Your task to perform on an android device: Search for razer naga on newegg, select the first entry, add it to the cart, then select checkout. Image 0: 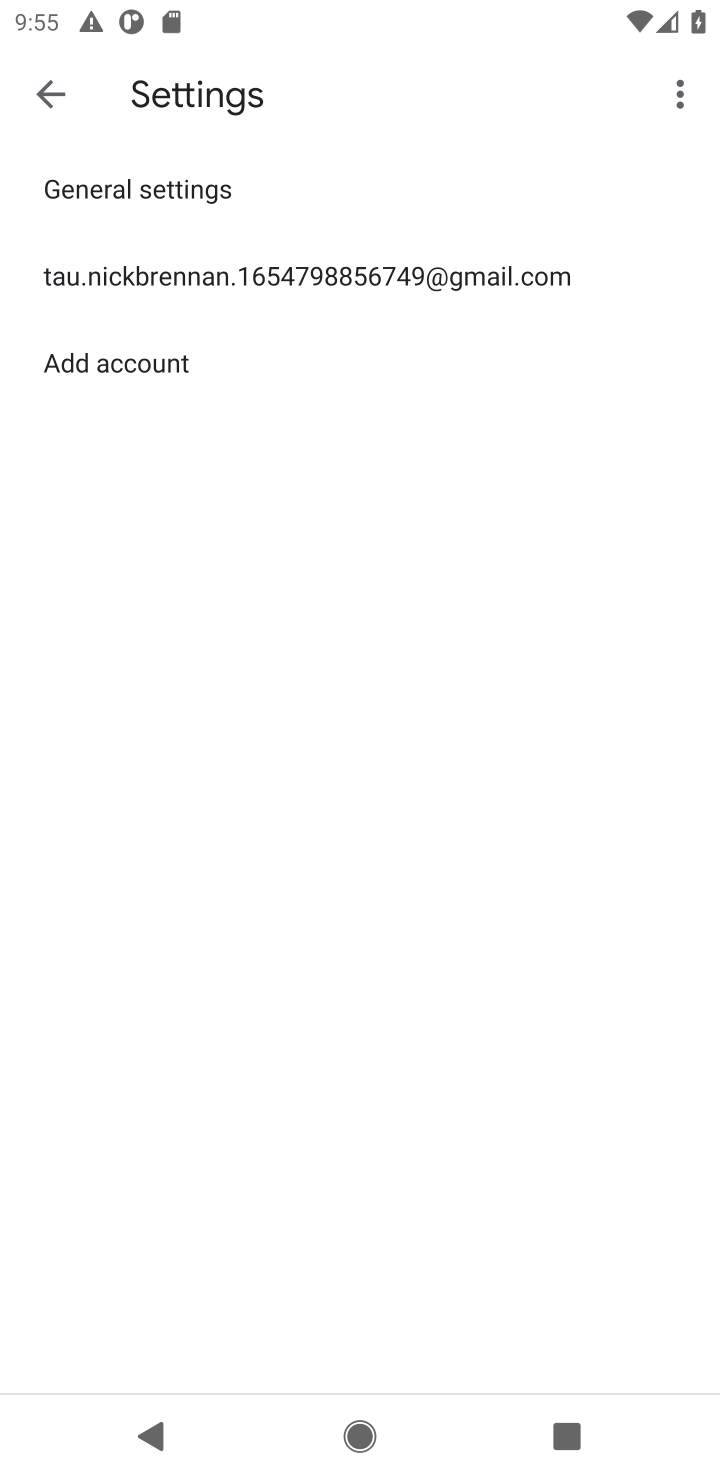
Step 0: press home button
Your task to perform on an android device: Search for razer naga on newegg, select the first entry, add it to the cart, then select checkout. Image 1: 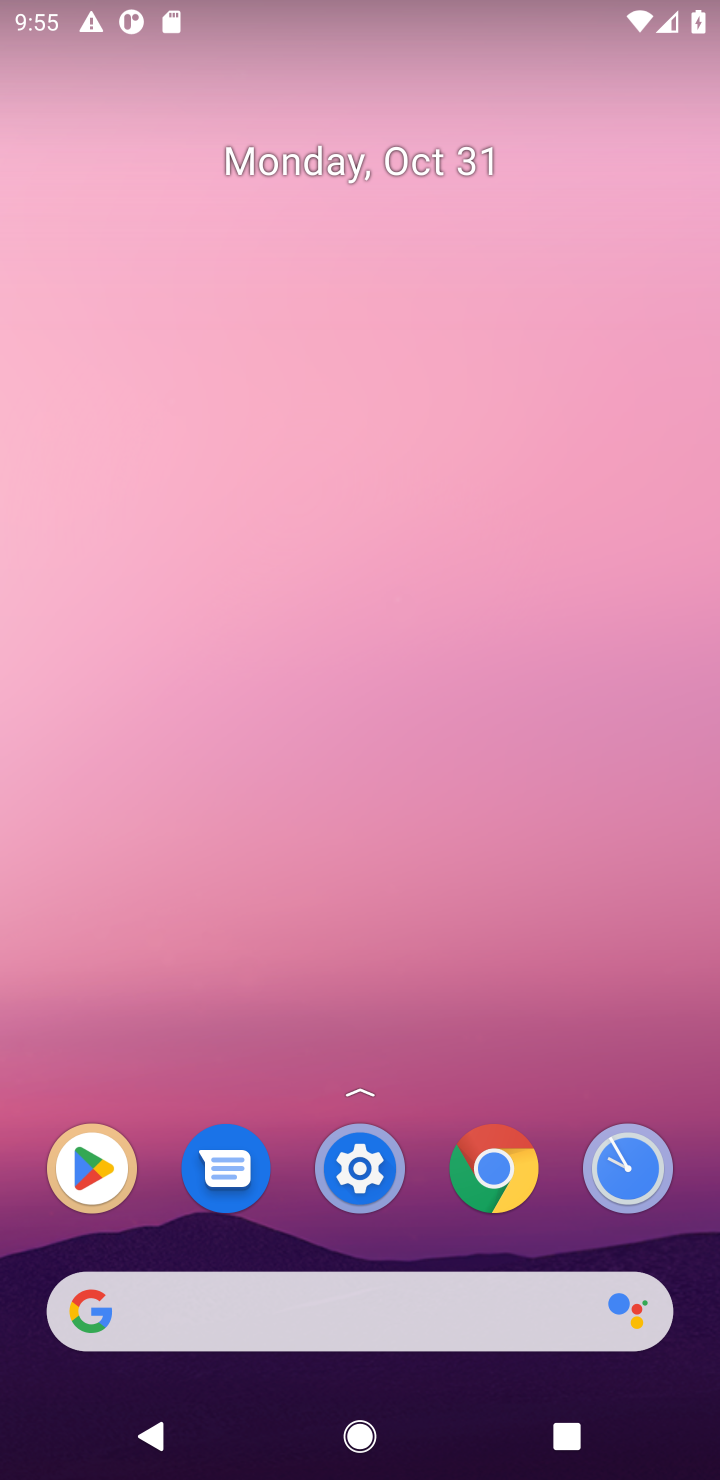
Step 1: click (493, 1176)
Your task to perform on an android device: Search for razer naga on newegg, select the first entry, add it to the cart, then select checkout. Image 2: 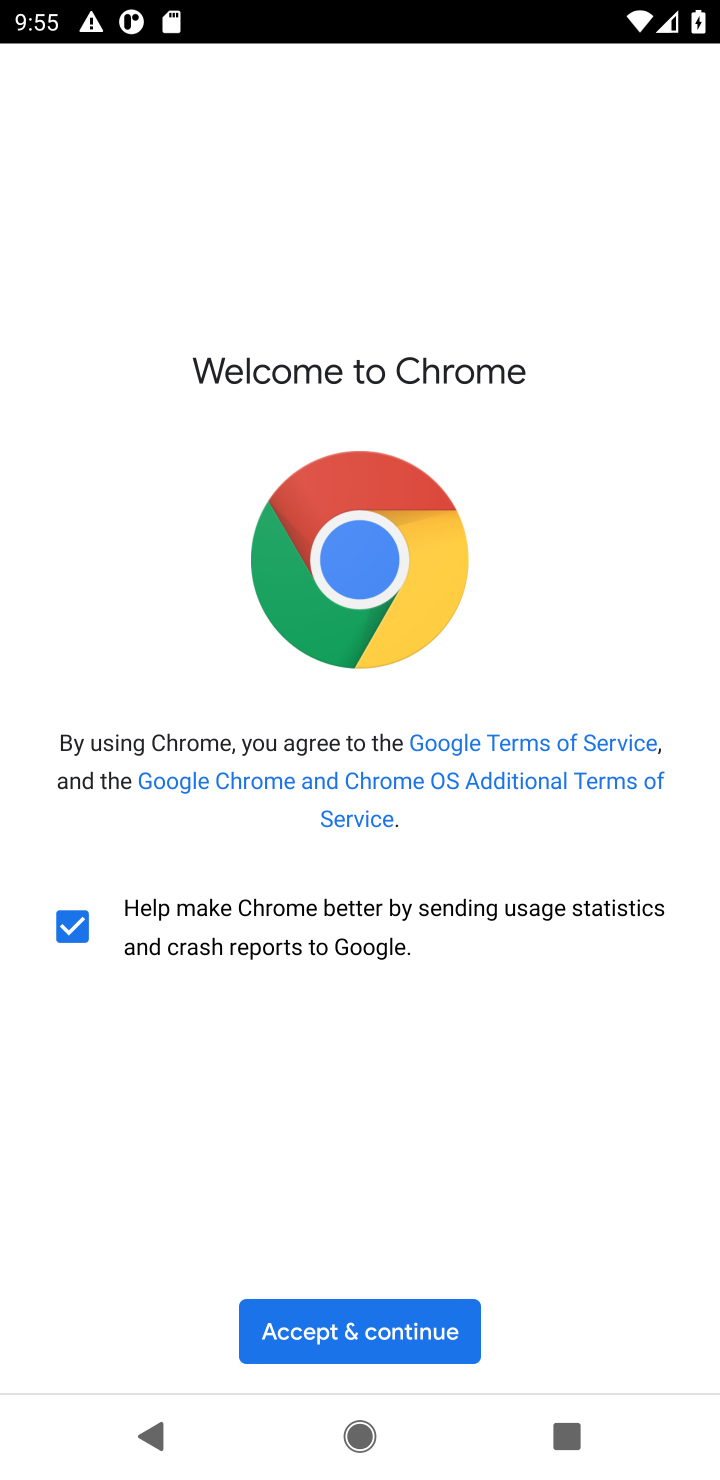
Step 2: click (322, 1324)
Your task to perform on an android device: Search for razer naga on newegg, select the first entry, add it to the cart, then select checkout. Image 3: 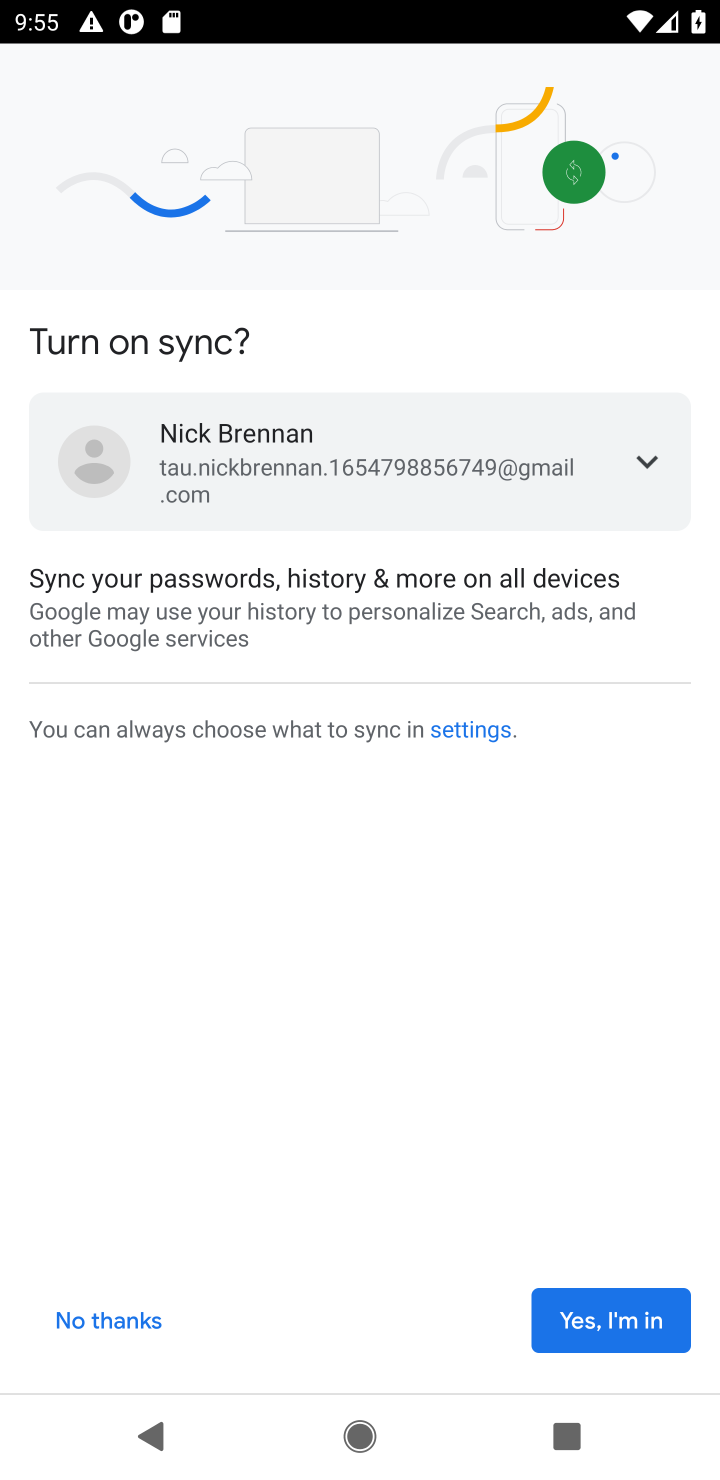
Step 3: click (82, 1314)
Your task to perform on an android device: Search for razer naga on newegg, select the first entry, add it to the cart, then select checkout. Image 4: 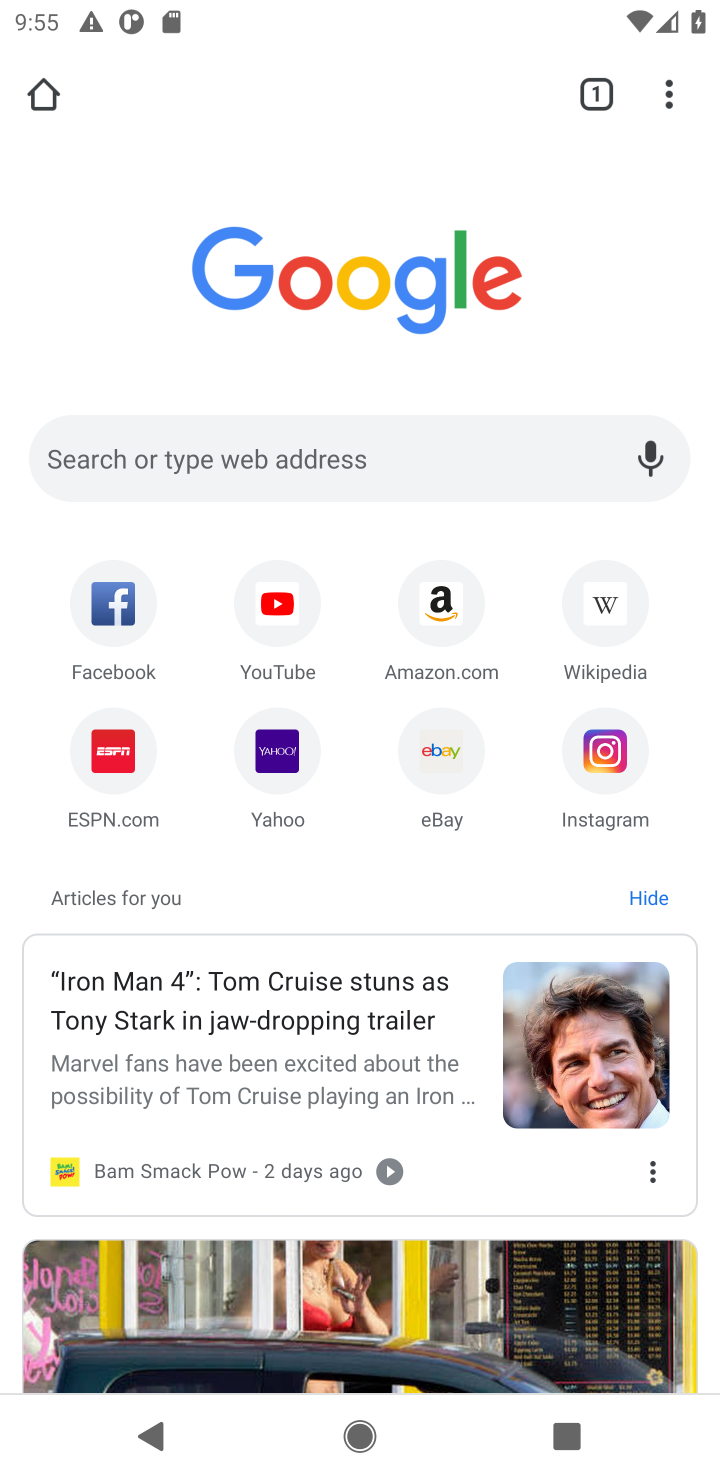
Step 4: click (429, 480)
Your task to perform on an android device: Search for razer naga on newegg, select the first entry, add it to the cart, then select checkout. Image 5: 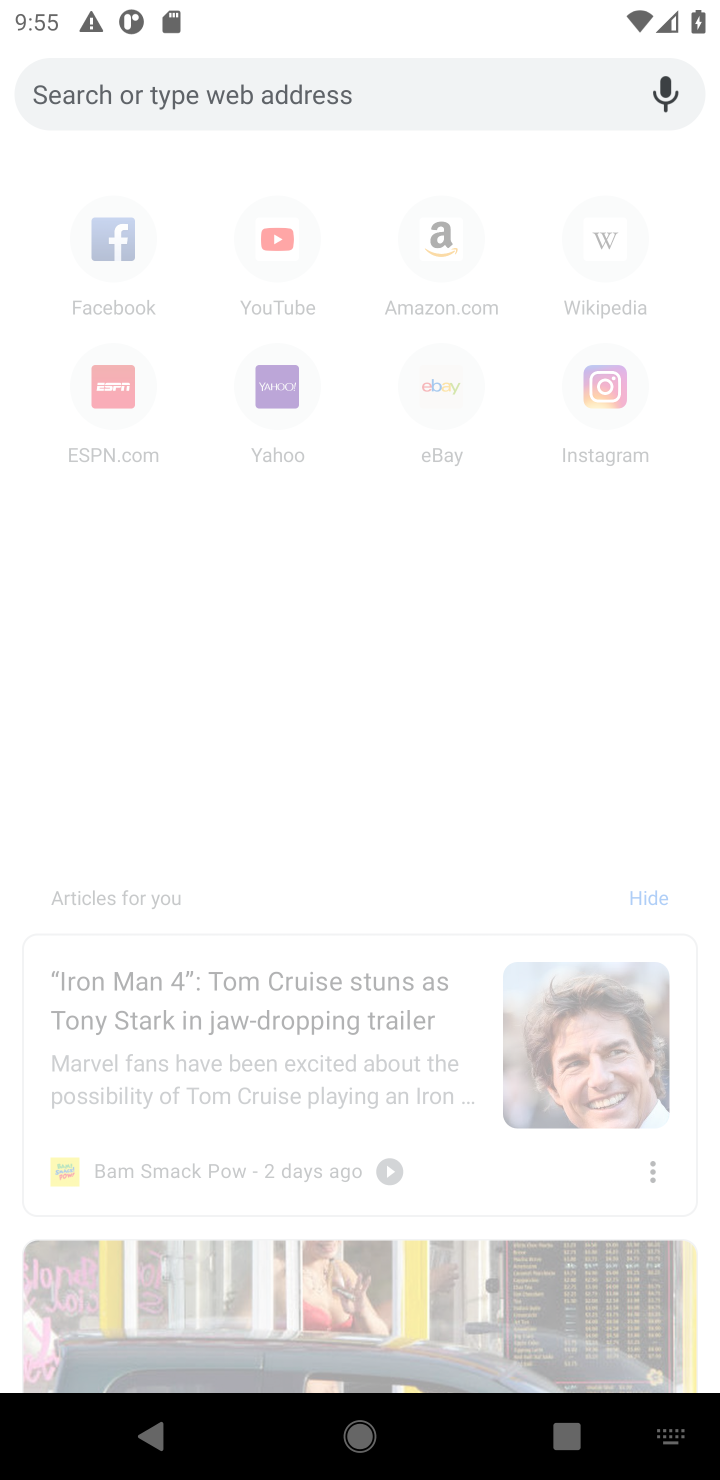
Step 5: type "newegg"
Your task to perform on an android device: Search for razer naga on newegg, select the first entry, add it to the cart, then select checkout. Image 6: 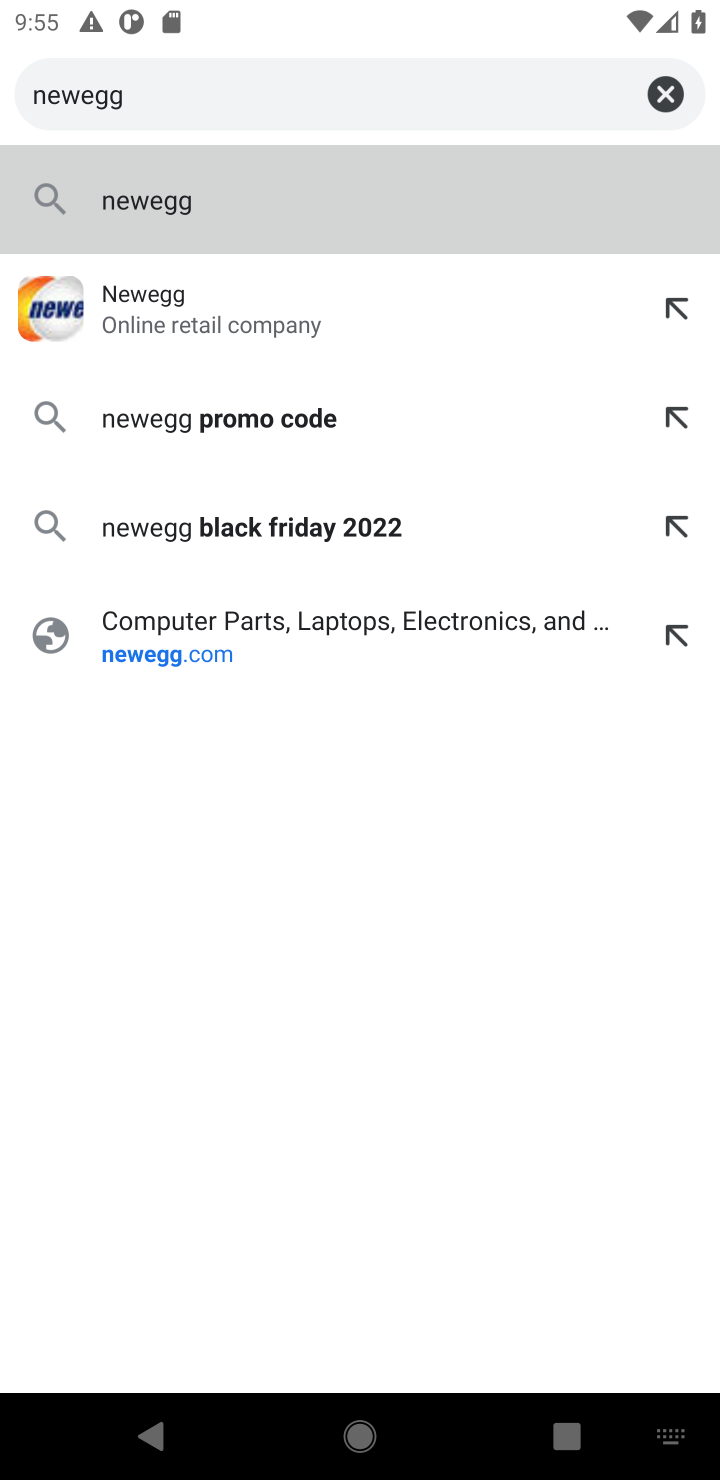
Step 6: click (202, 304)
Your task to perform on an android device: Search for razer naga on newegg, select the first entry, add it to the cart, then select checkout. Image 7: 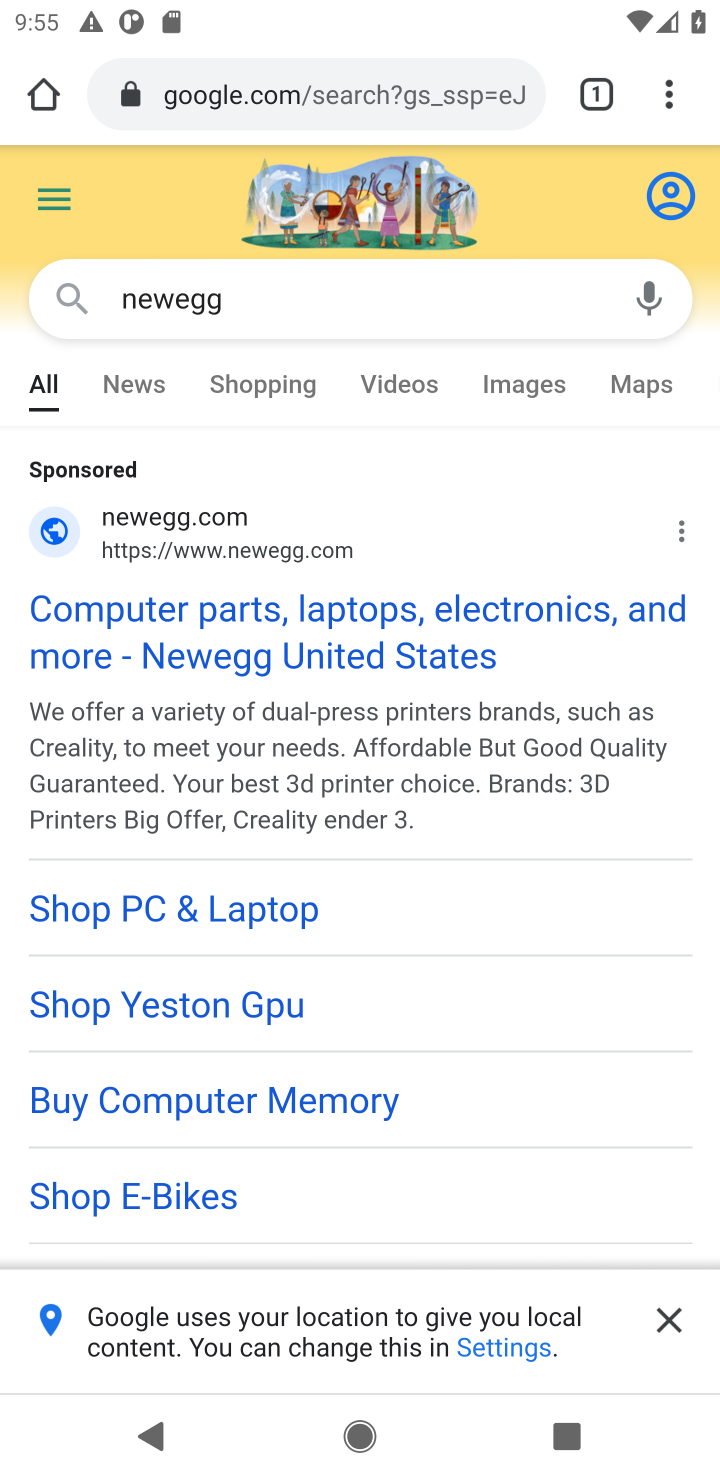
Step 7: click (350, 657)
Your task to perform on an android device: Search for razer naga on newegg, select the first entry, add it to the cart, then select checkout. Image 8: 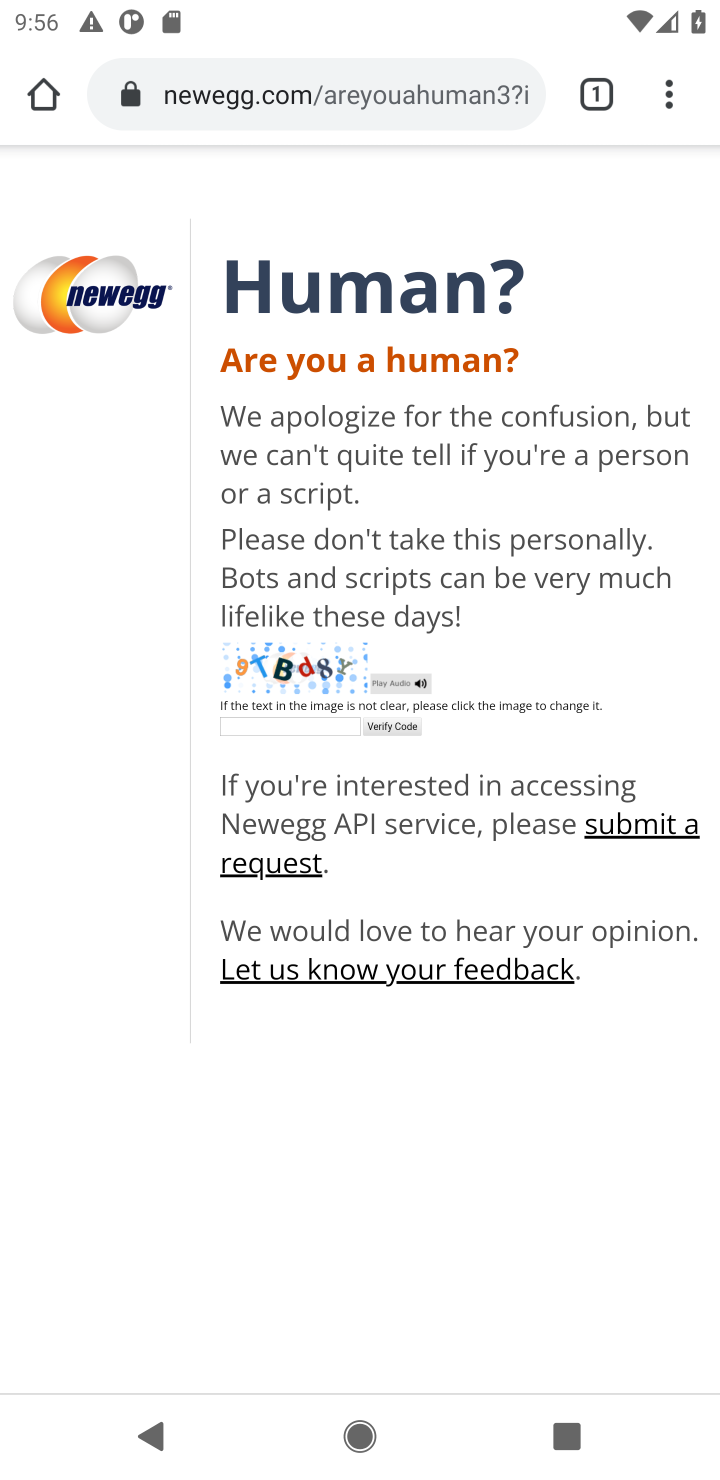
Step 8: click (301, 729)
Your task to perform on an android device: Search for razer naga on newegg, select the first entry, add it to the cart, then select checkout. Image 9: 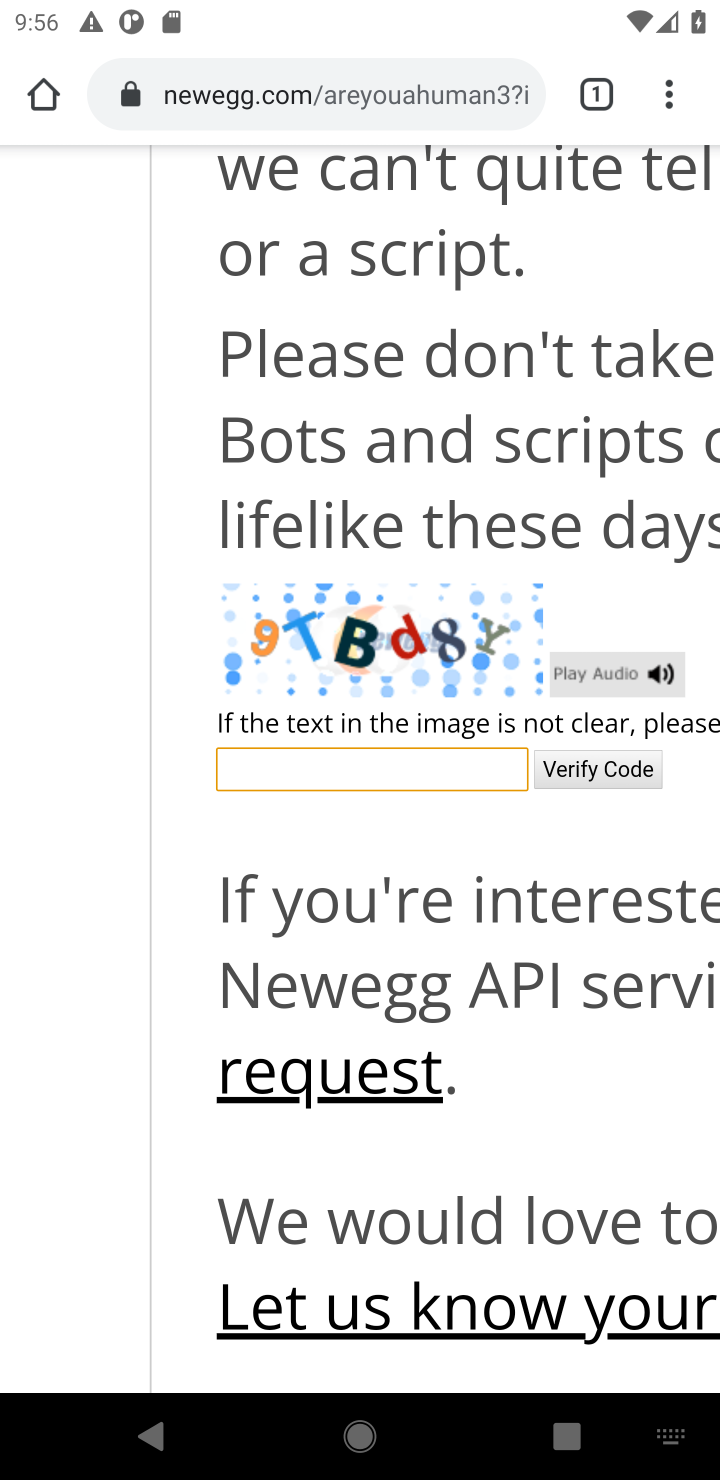
Step 9: type "8TBd8Y"
Your task to perform on an android device: Search for razer naga on newegg, select the first entry, add it to the cart, then select checkout. Image 10: 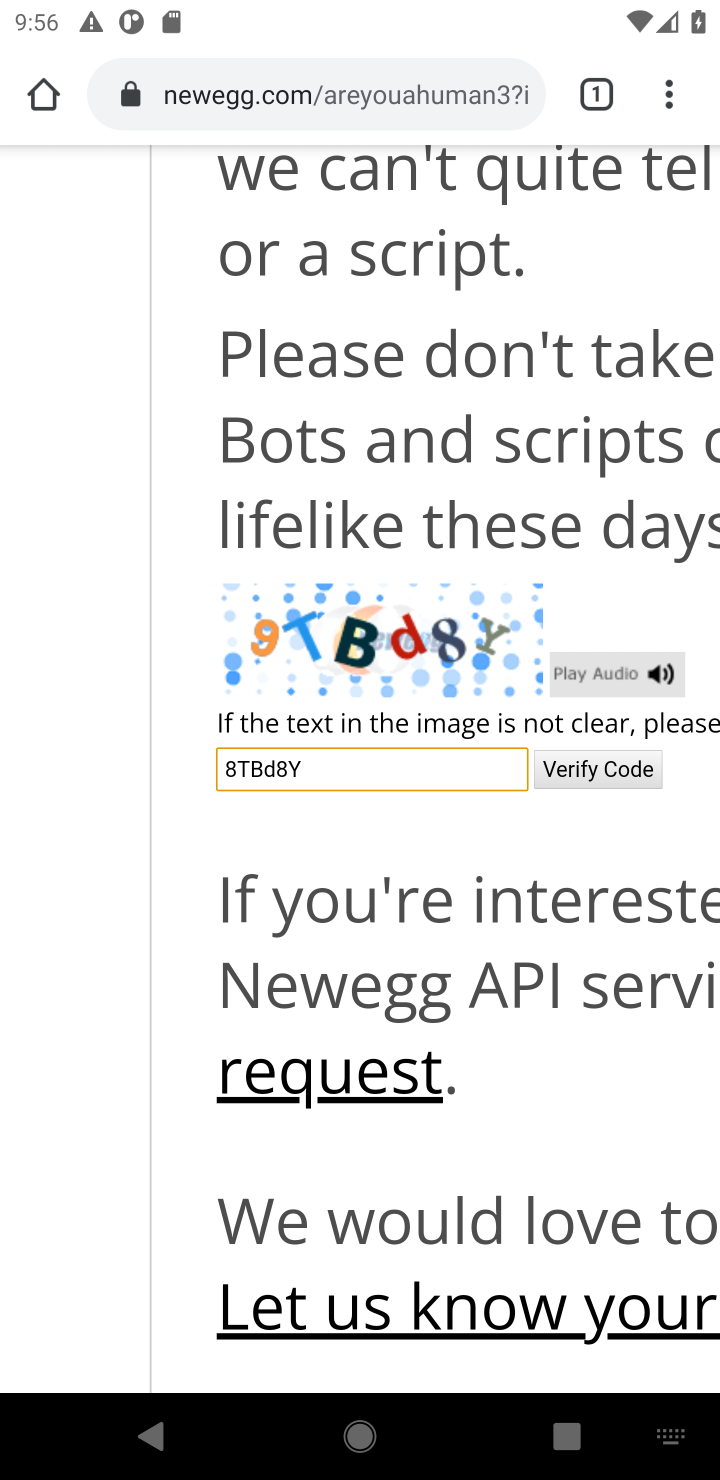
Step 10: click (621, 770)
Your task to perform on an android device: Search for razer naga on newegg, select the first entry, add it to the cart, then select checkout. Image 11: 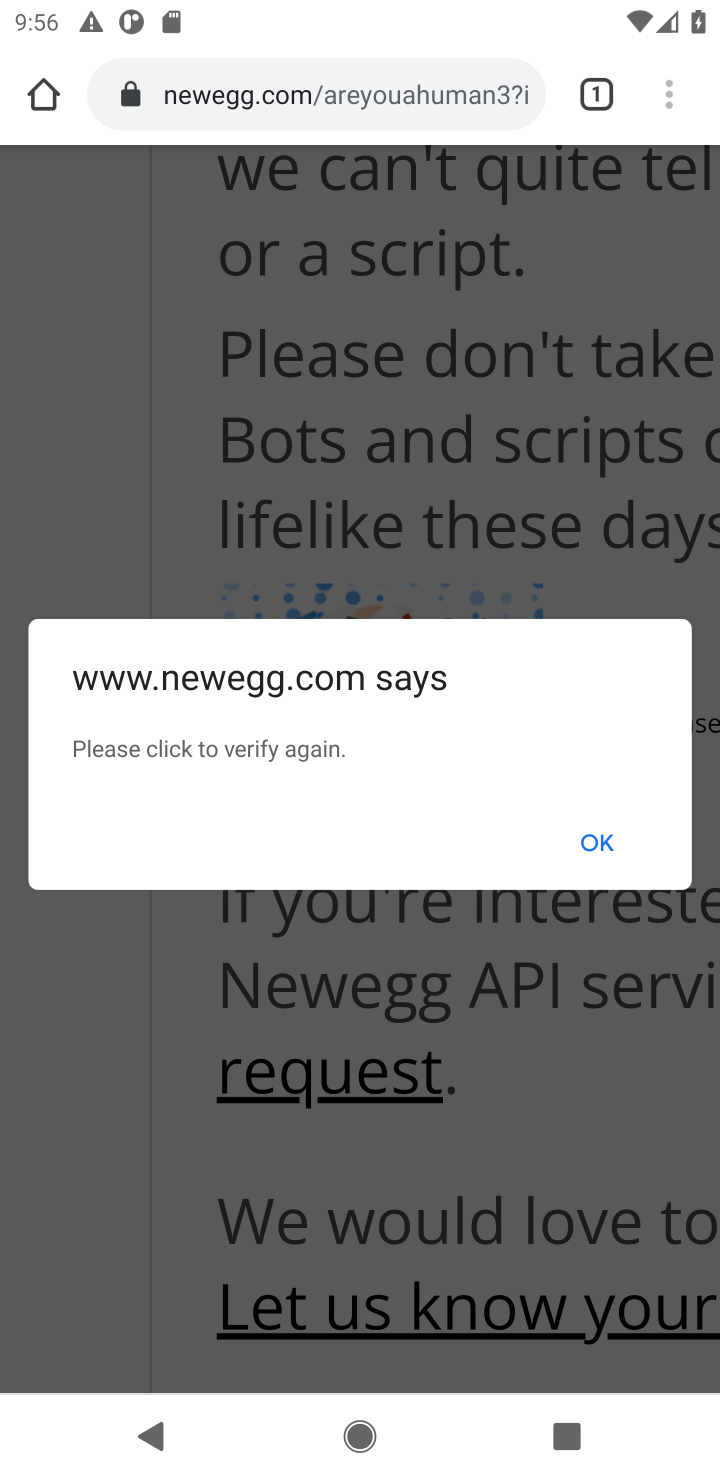
Step 11: click (601, 843)
Your task to perform on an android device: Search for razer naga on newegg, select the first entry, add it to the cart, then select checkout. Image 12: 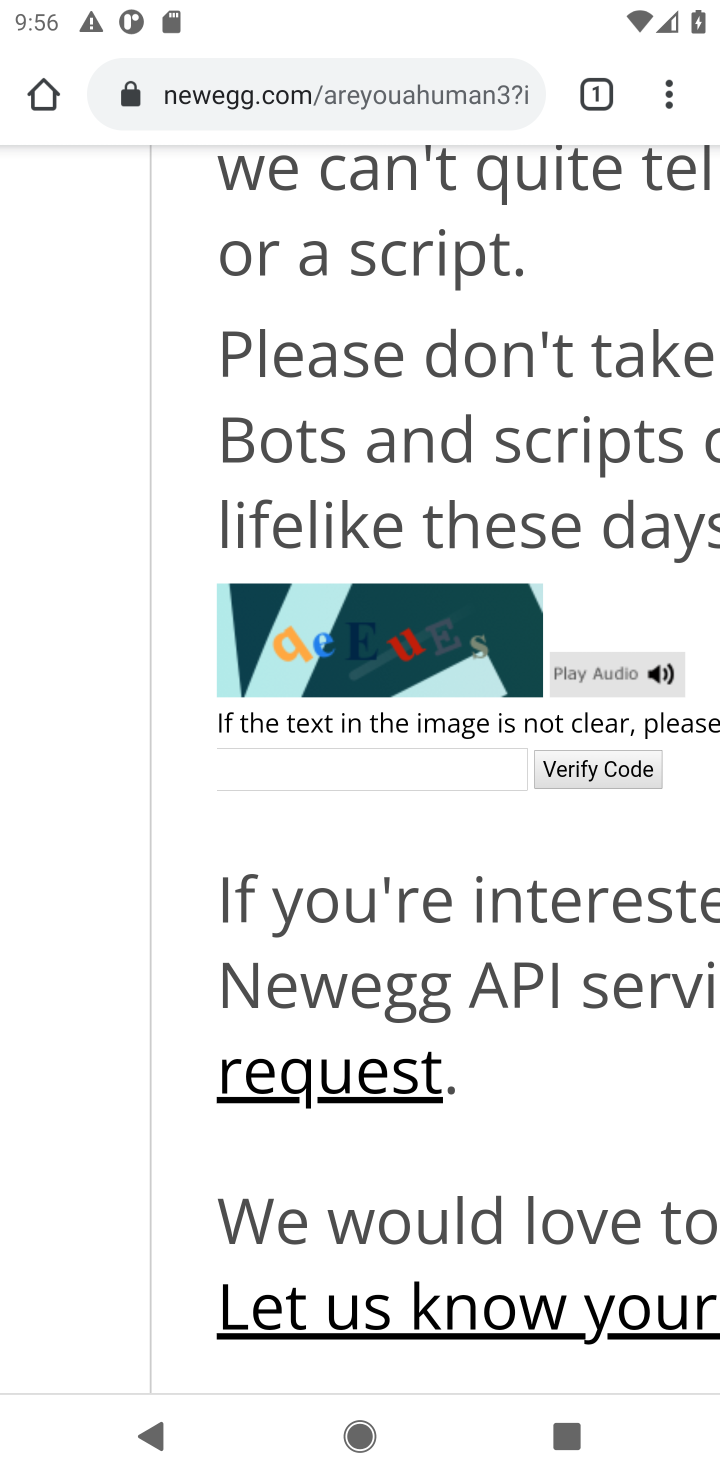
Step 12: click (431, 774)
Your task to perform on an android device: Search for razer naga on newegg, select the first entry, add it to the cart, then select checkout. Image 13: 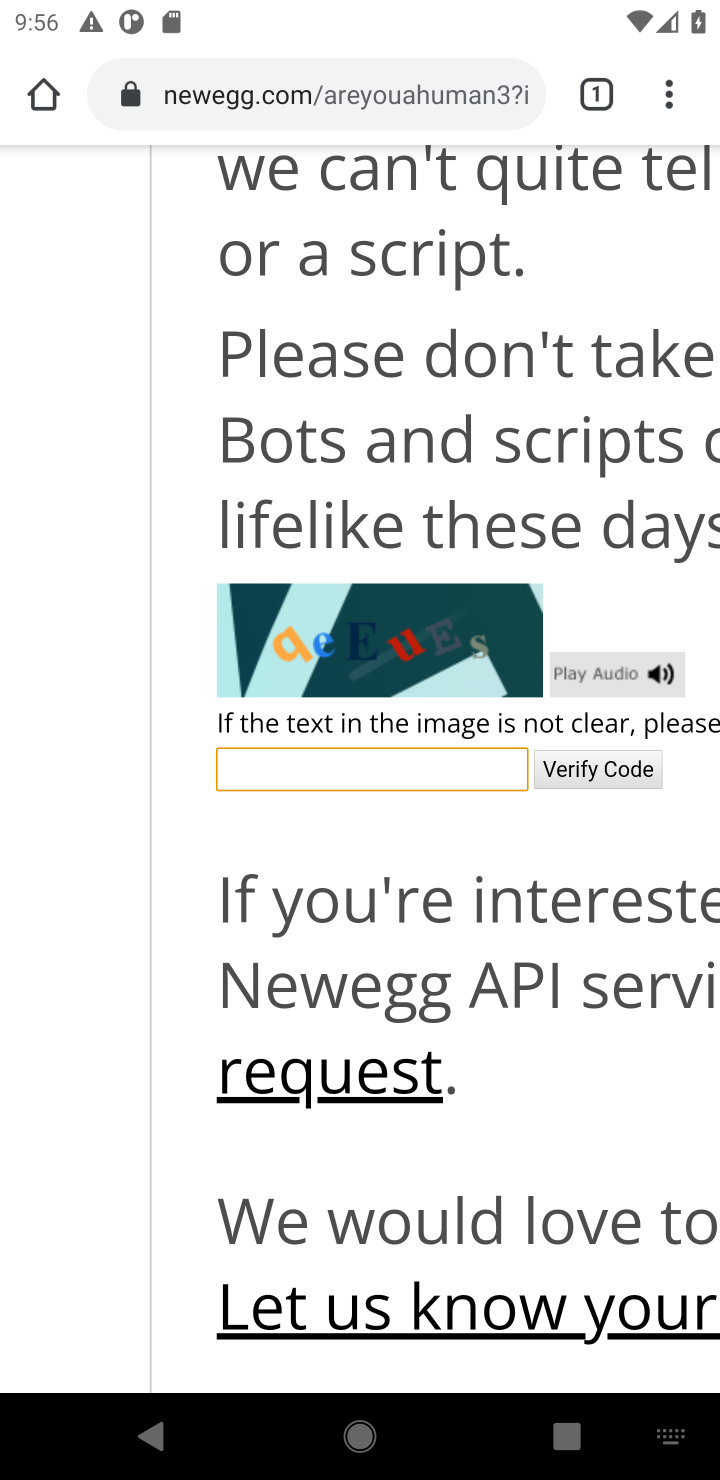
Step 13: type "qeEuEs"
Your task to perform on an android device: Search for razer naga on newegg, select the first entry, add it to the cart, then select checkout. Image 14: 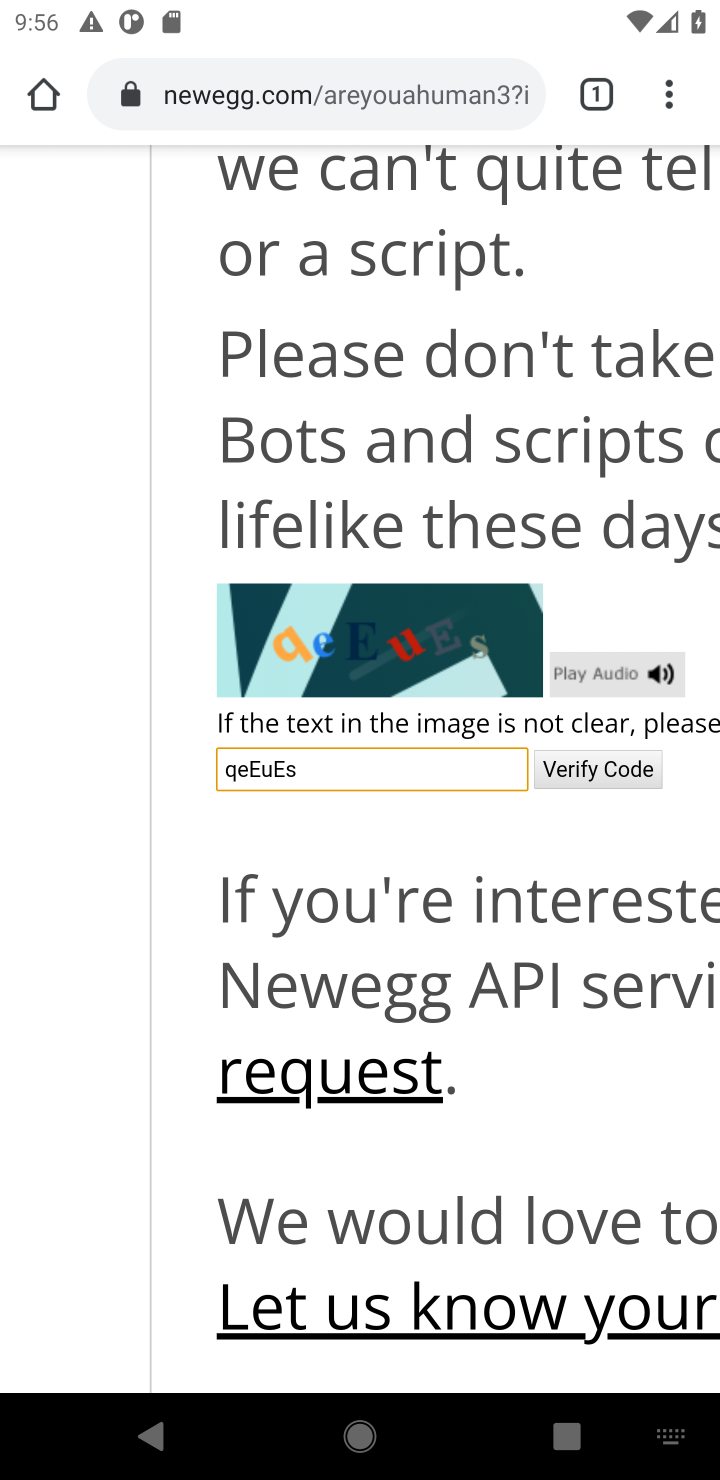
Step 14: click (626, 772)
Your task to perform on an android device: Search for razer naga on newegg, select the first entry, add it to the cart, then select checkout. Image 15: 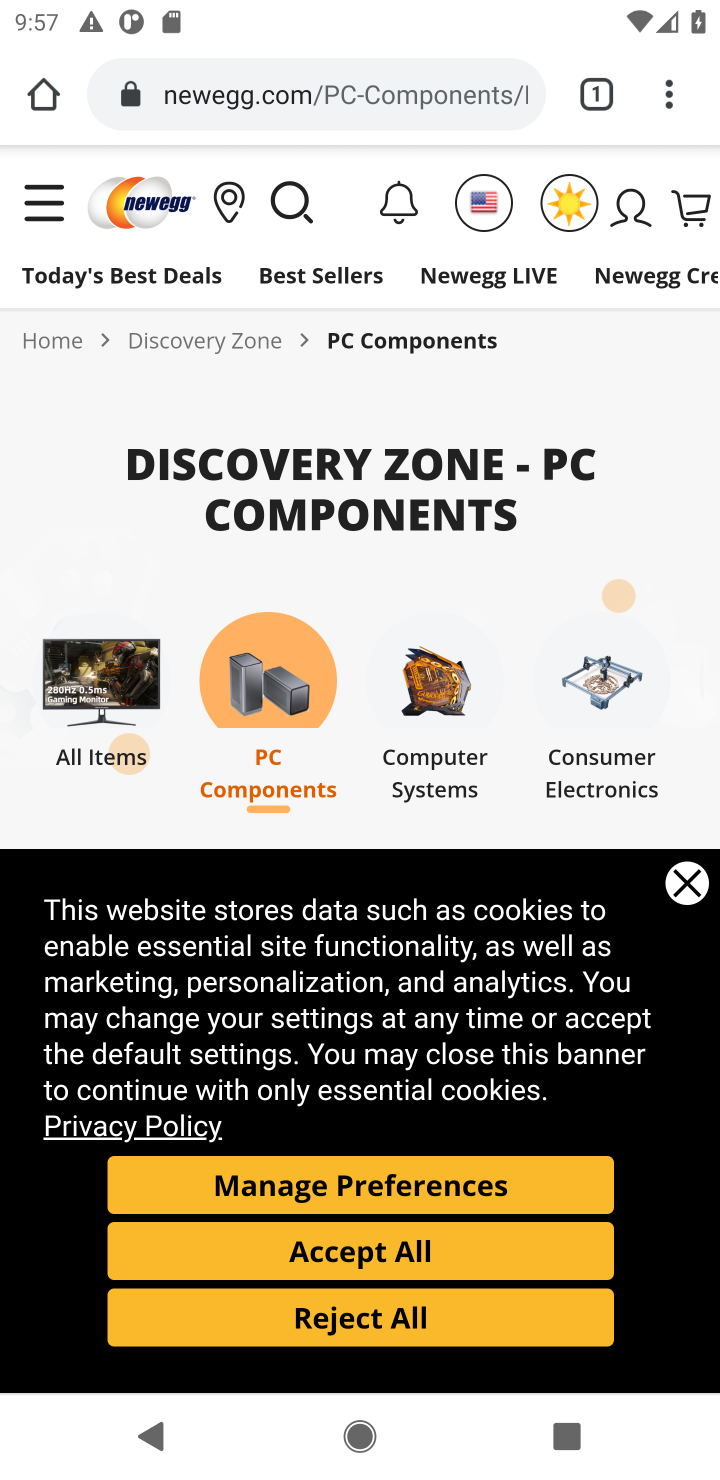
Step 15: click (426, 1253)
Your task to perform on an android device: Search for razer naga on newegg, select the first entry, add it to the cart, then select checkout. Image 16: 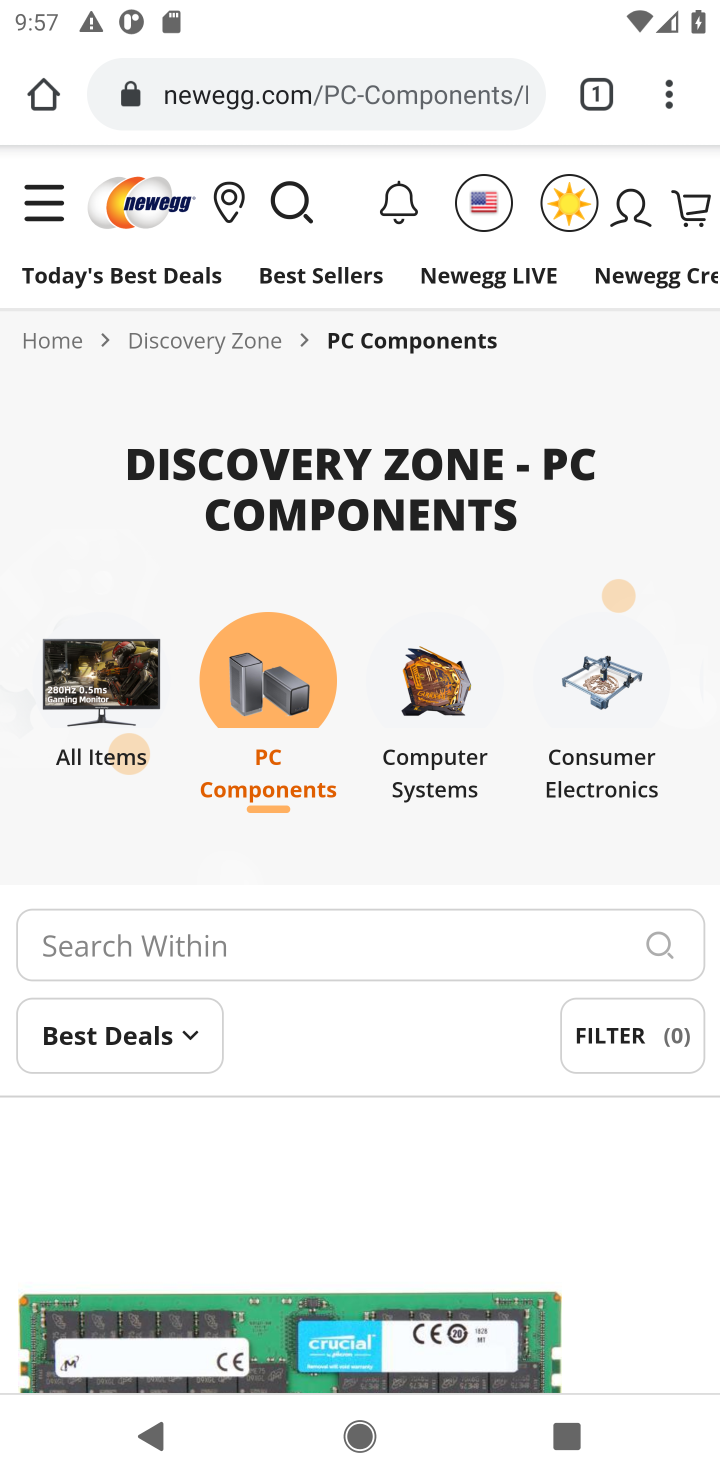
Step 16: click (287, 207)
Your task to perform on an android device: Search for razer naga on newegg, select the first entry, add it to the cart, then select checkout. Image 17: 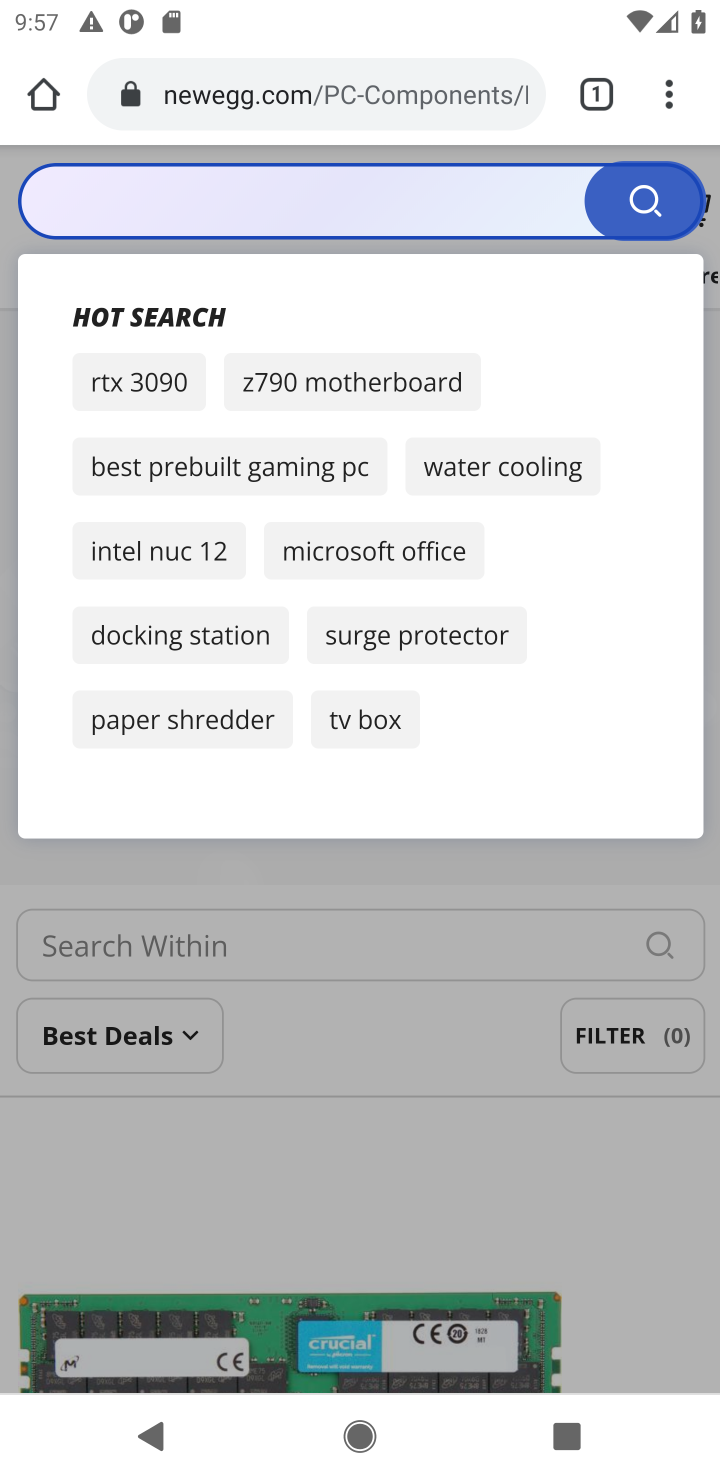
Step 17: type "razer naga "
Your task to perform on an android device: Search for razer naga on newegg, select the first entry, add it to the cart, then select checkout. Image 18: 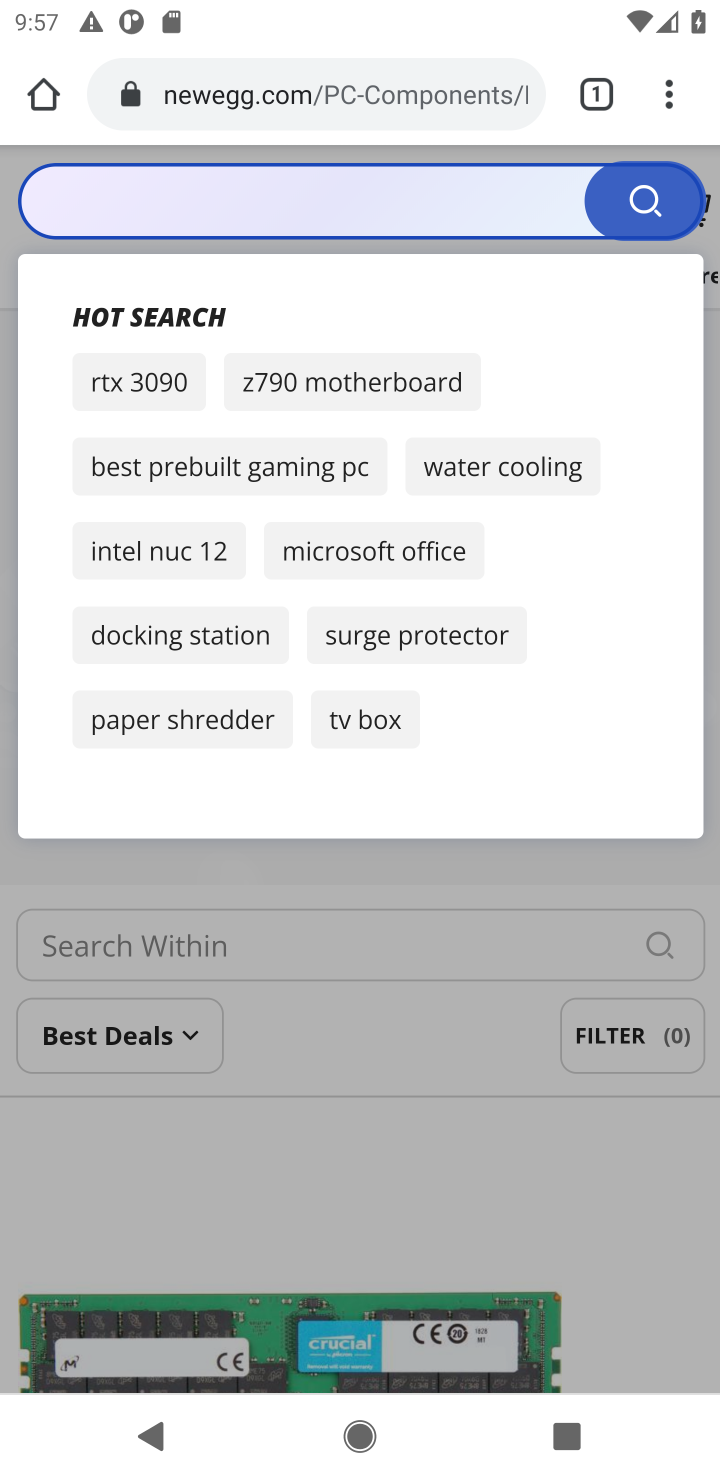
Step 18: click (429, 200)
Your task to perform on an android device: Search for razer naga on newegg, select the first entry, add it to the cart, then select checkout. Image 19: 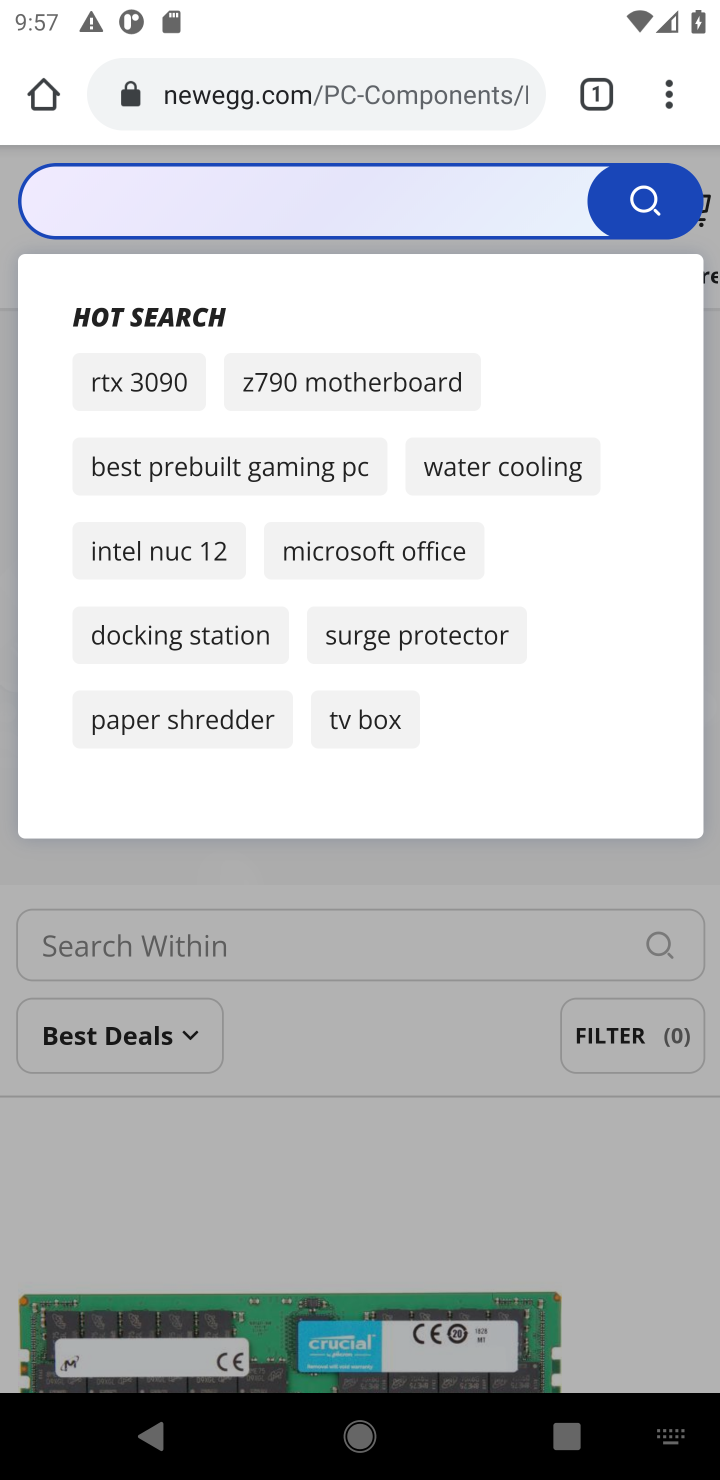
Step 19: type "razer naga "
Your task to perform on an android device: Search for razer naga on newegg, select the first entry, add it to the cart, then select checkout. Image 20: 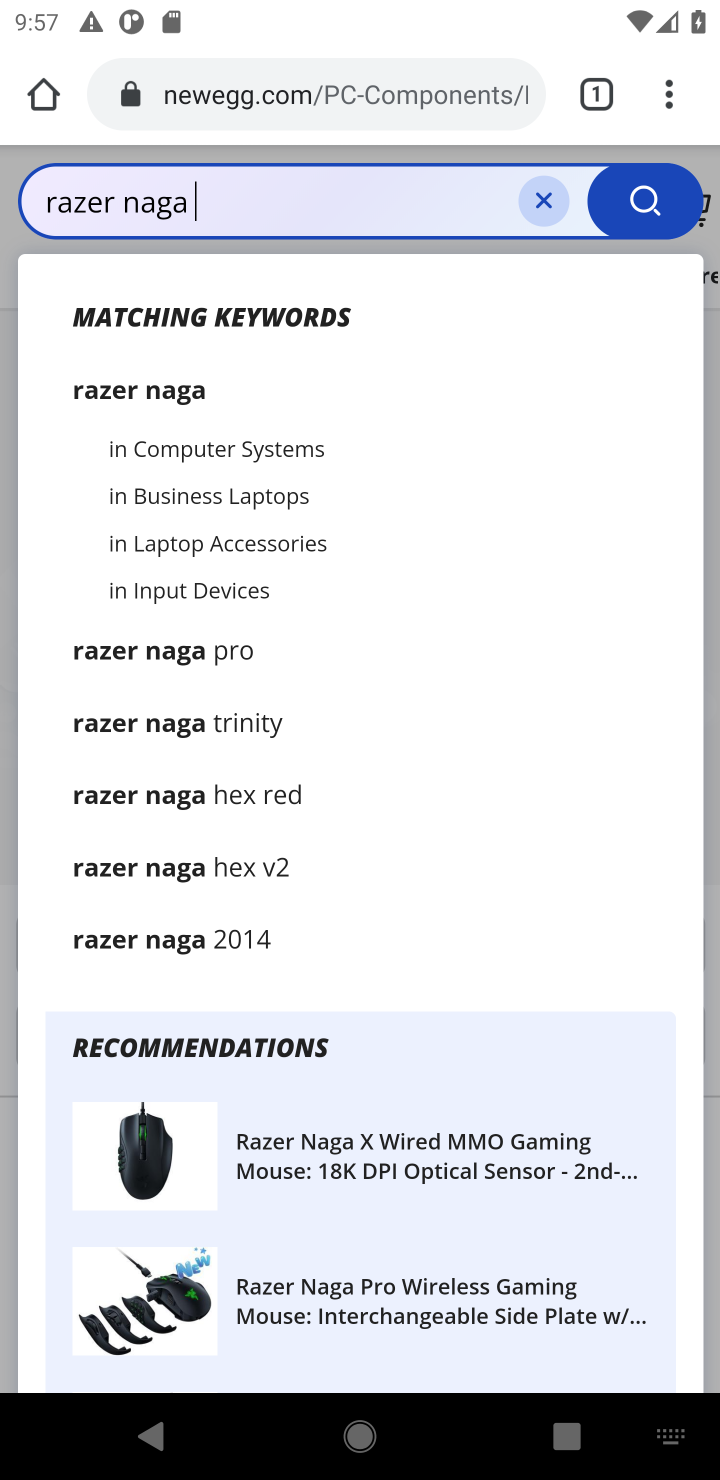
Step 20: press enter
Your task to perform on an android device: Search for razer naga on newegg, select the first entry, add it to the cart, then select checkout. Image 21: 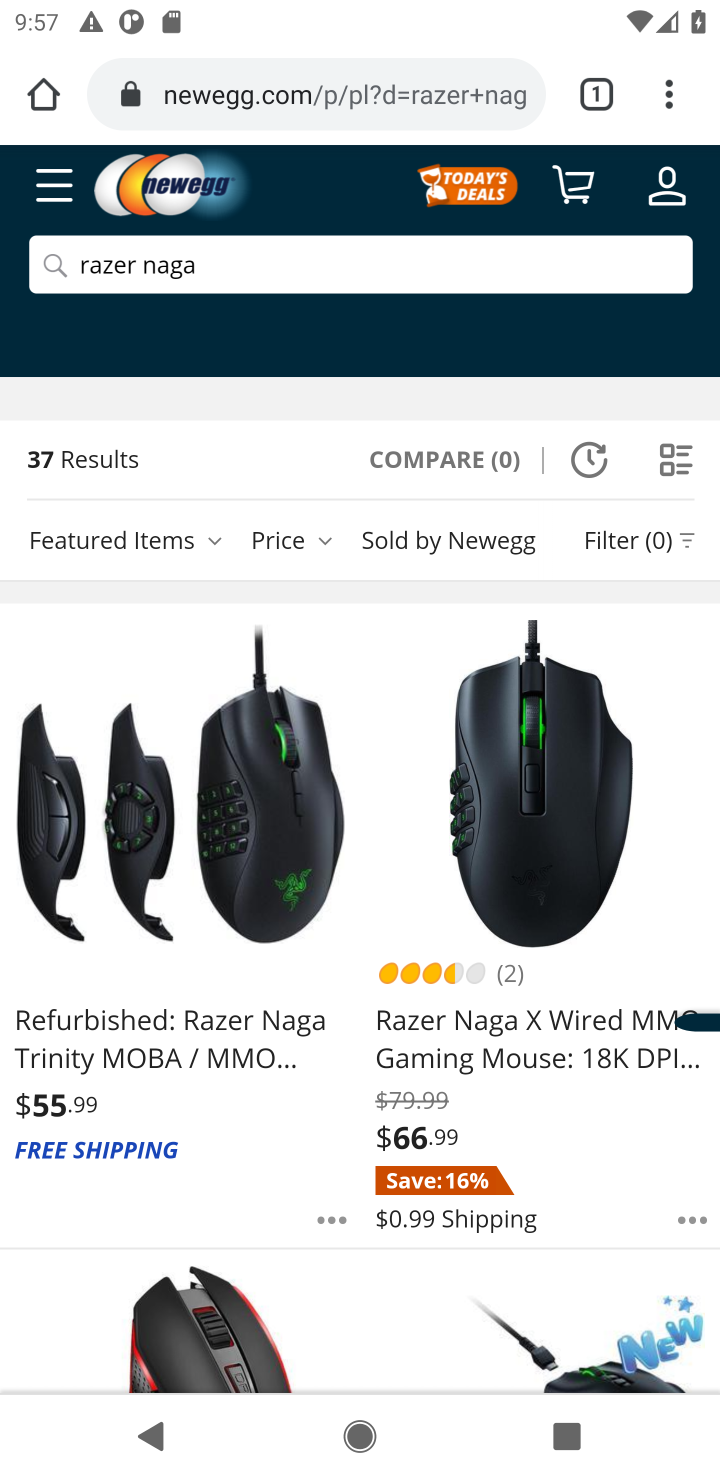
Step 21: click (219, 815)
Your task to perform on an android device: Search for razer naga on newegg, select the first entry, add it to the cart, then select checkout. Image 22: 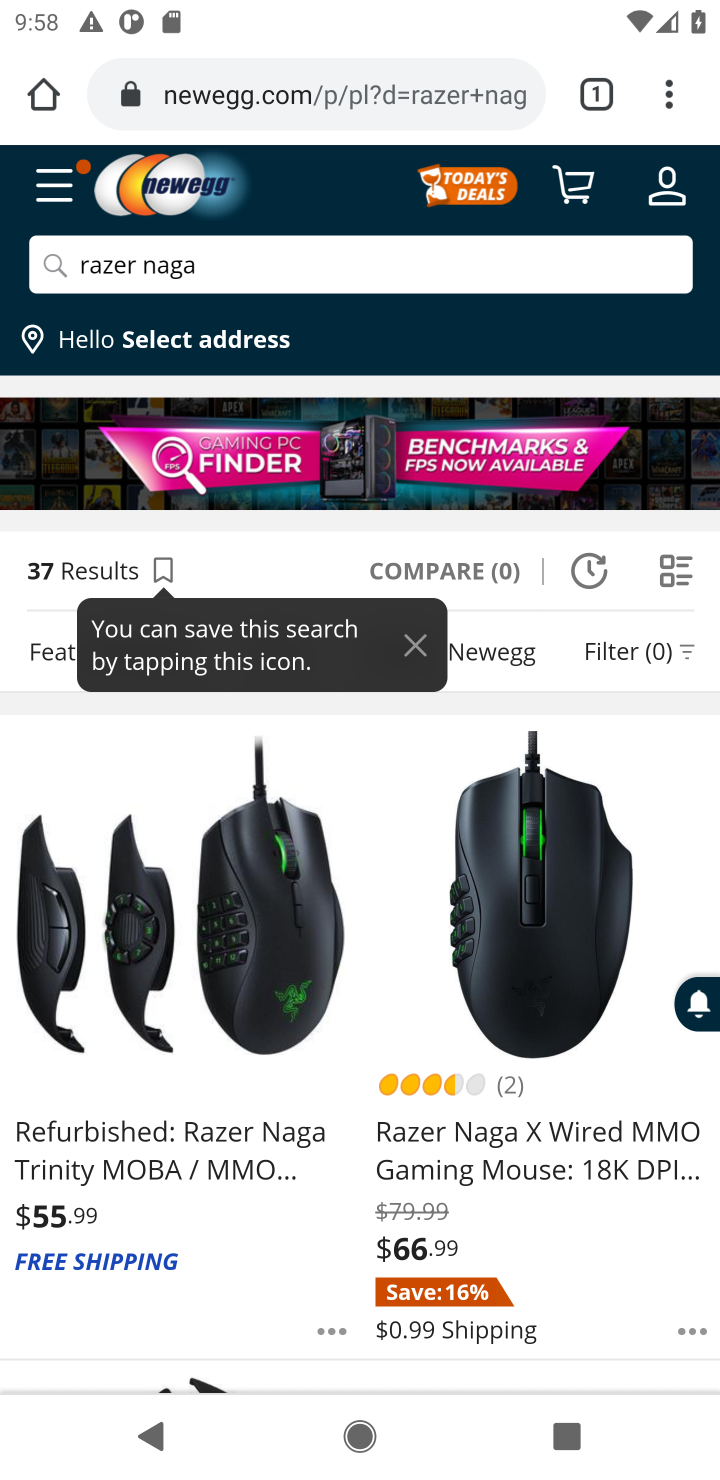
Step 22: click (183, 975)
Your task to perform on an android device: Search for razer naga on newegg, select the first entry, add it to the cart, then select checkout. Image 23: 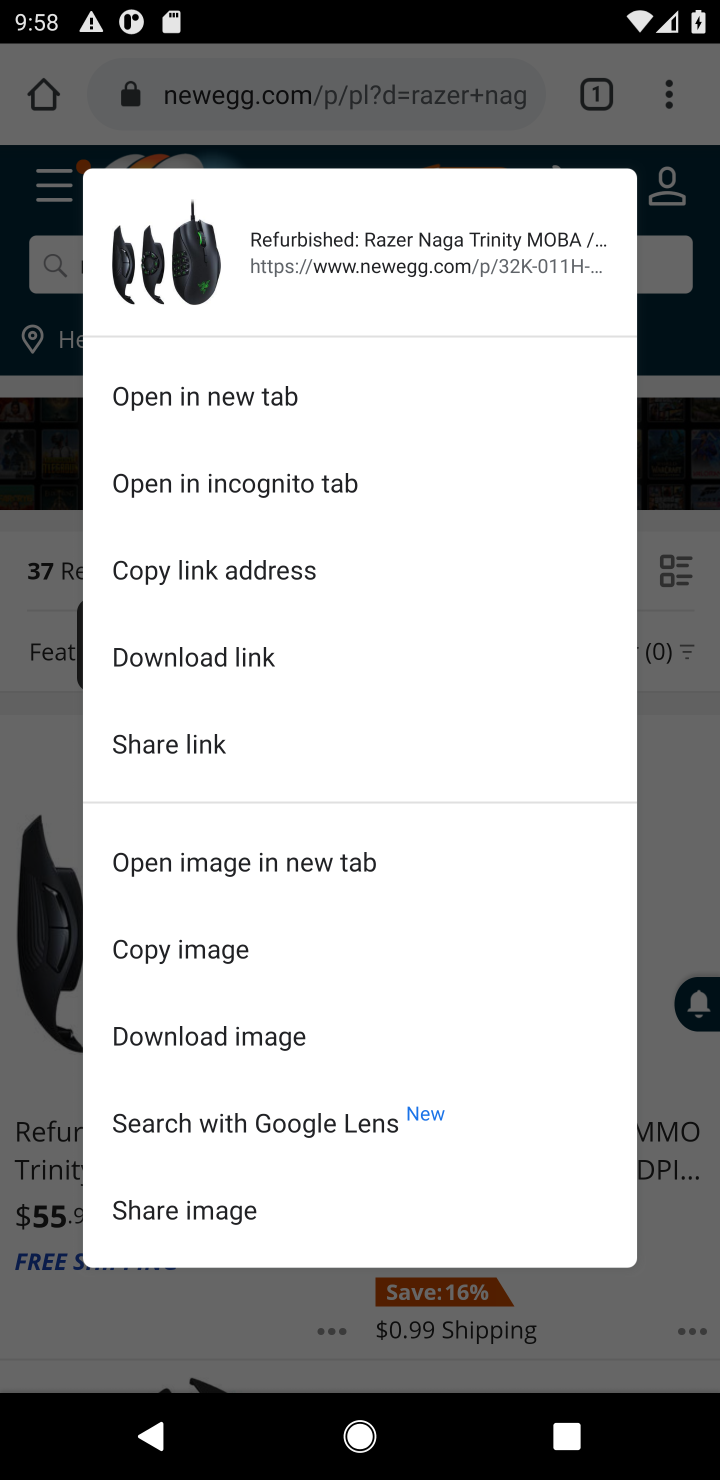
Step 23: click (64, 925)
Your task to perform on an android device: Search for razer naga on newegg, select the first entry, add it to the cart, then select checkout. Image 24: 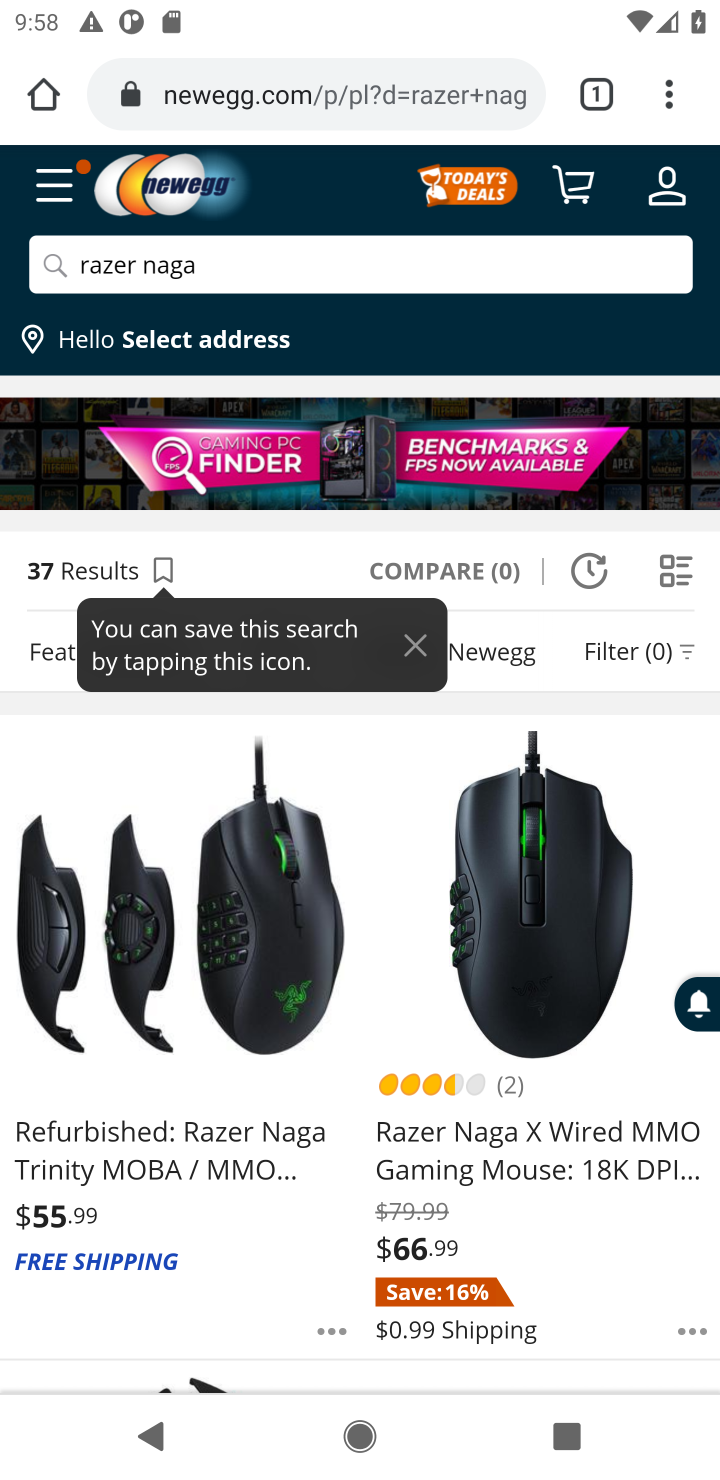
Step 24: click (116, 1026)
Your task to perform on an android device: Search for razer naga on newegg, select the first entry, add it to the cart, then select checkout. Image 25: 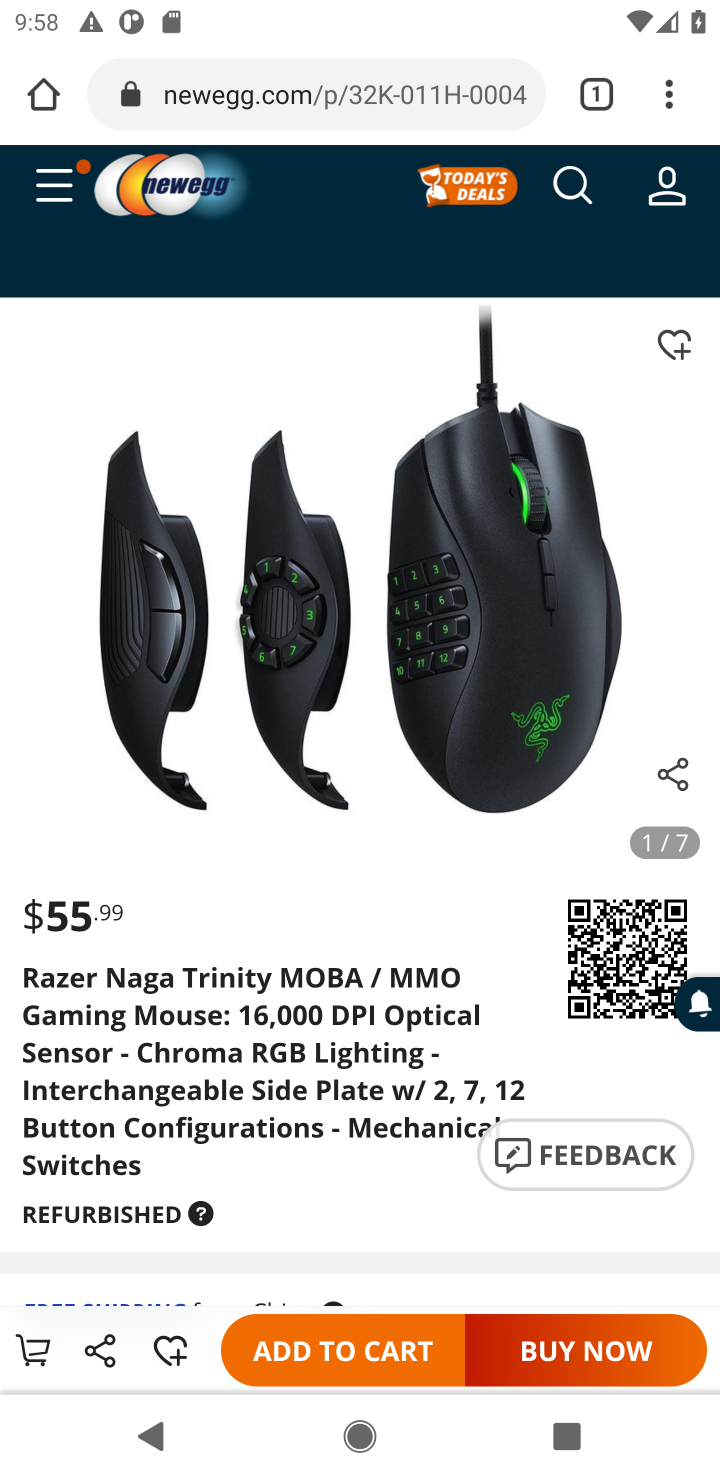
Step 25: click (314, 1352)
Your task to perform on an android device: Search for razer naga on newegg, select the first entry, add it to the cart, then select checkout. Image 26: 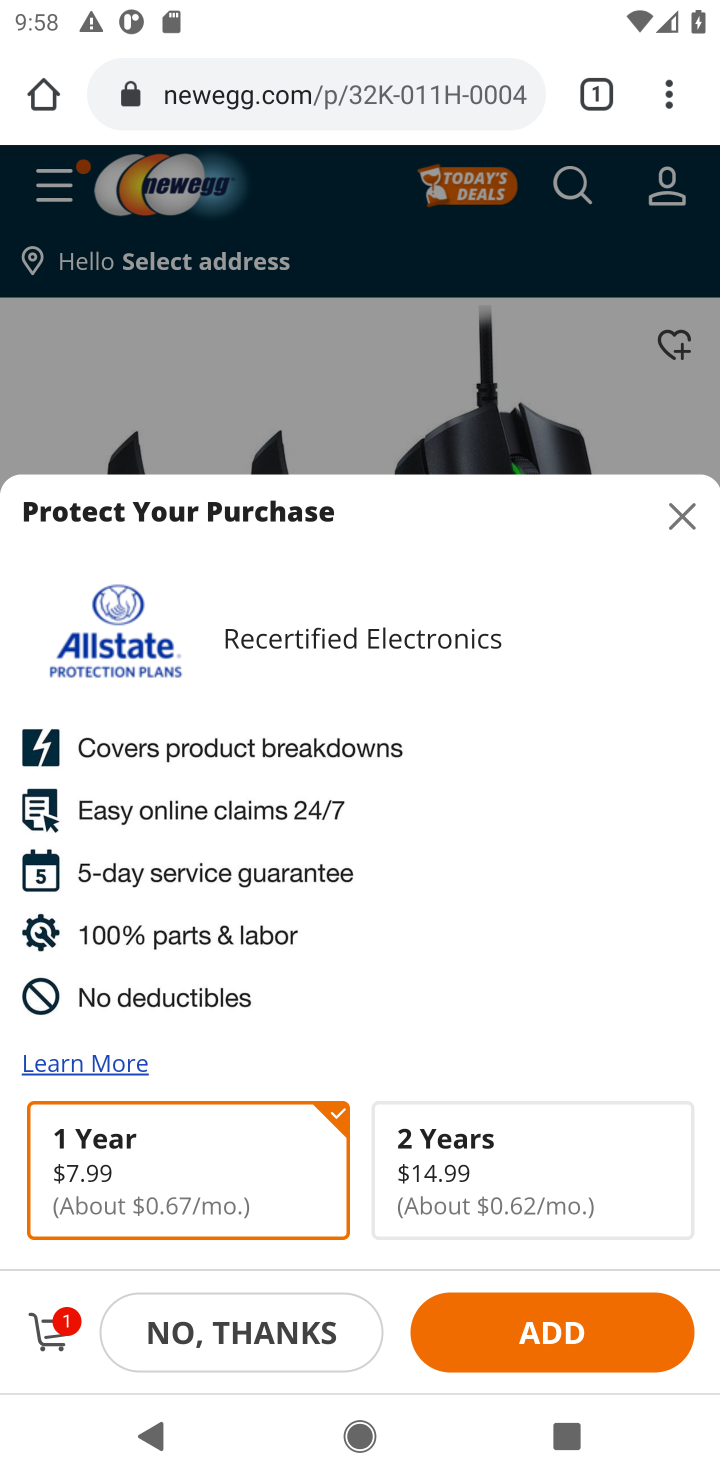
Step 26: click (42, 1342)
Your task to perform on an android device: Search for razer naga on newegg, select the first entry, add it to the cart, then select checkout. Image 27: 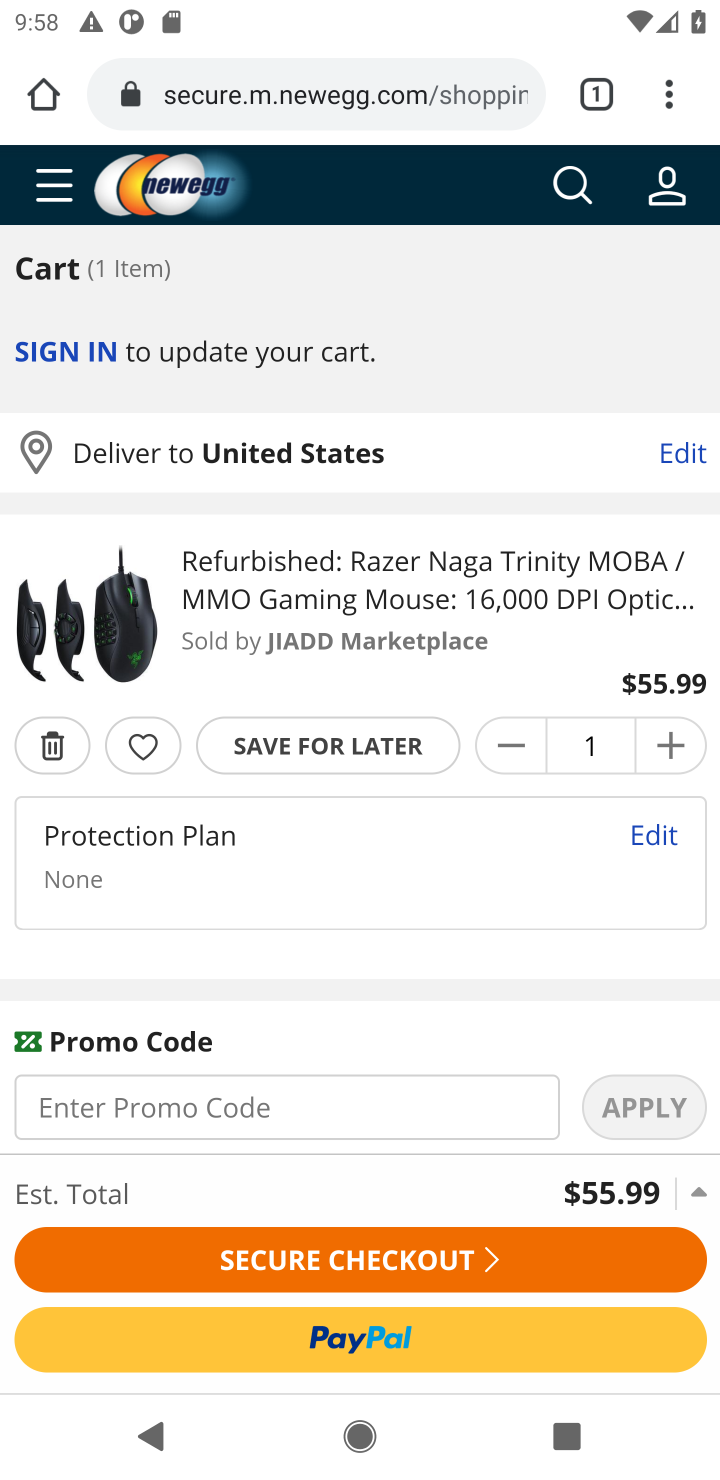
Step 27: click (300, 1288)
Your task to perform on an android device: Search for razer naga on newegg, select the first entry, add it to the cart, then select checkout. Image 28: 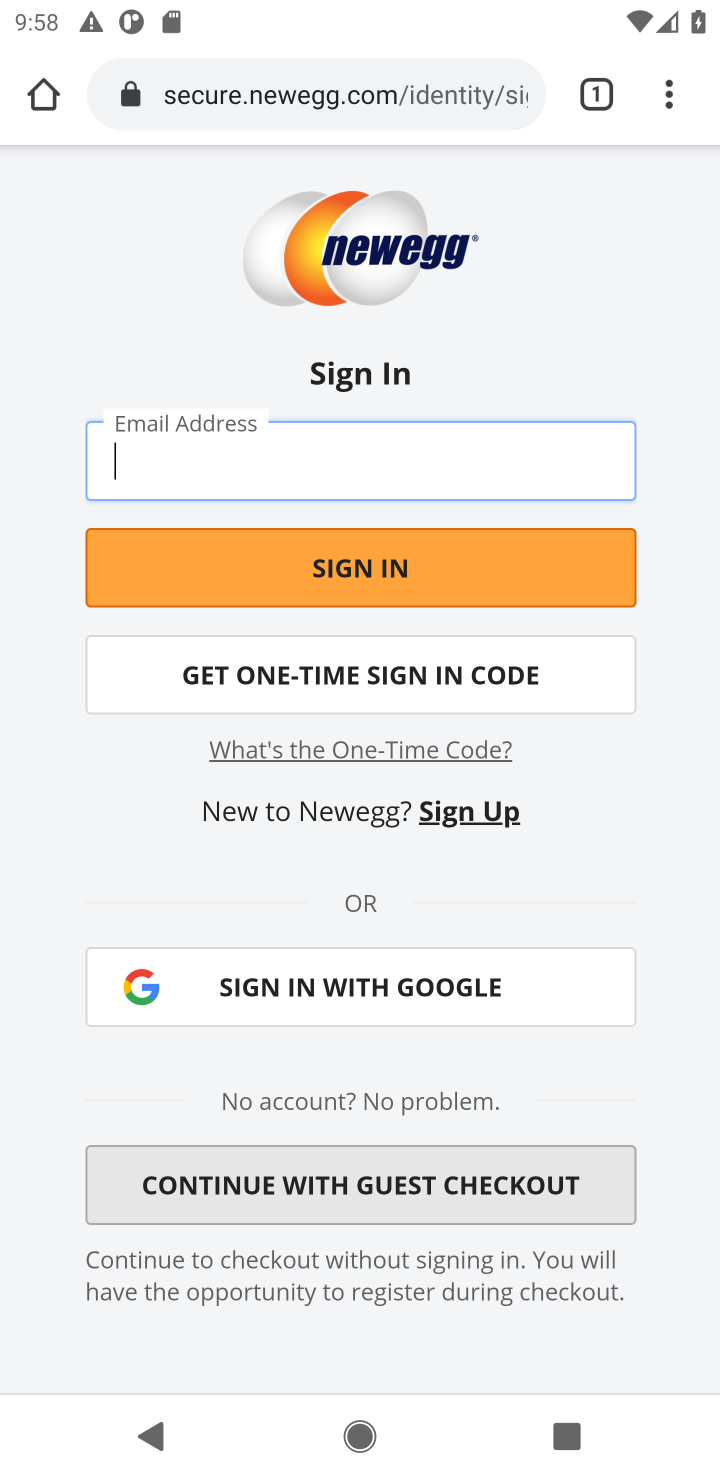
Step 28: task complete